Your task to perform on an android device: Empty the shopping cart on target. Search for "alienware area 51" on target, select the first entry, and add it to the cart. Image 0: 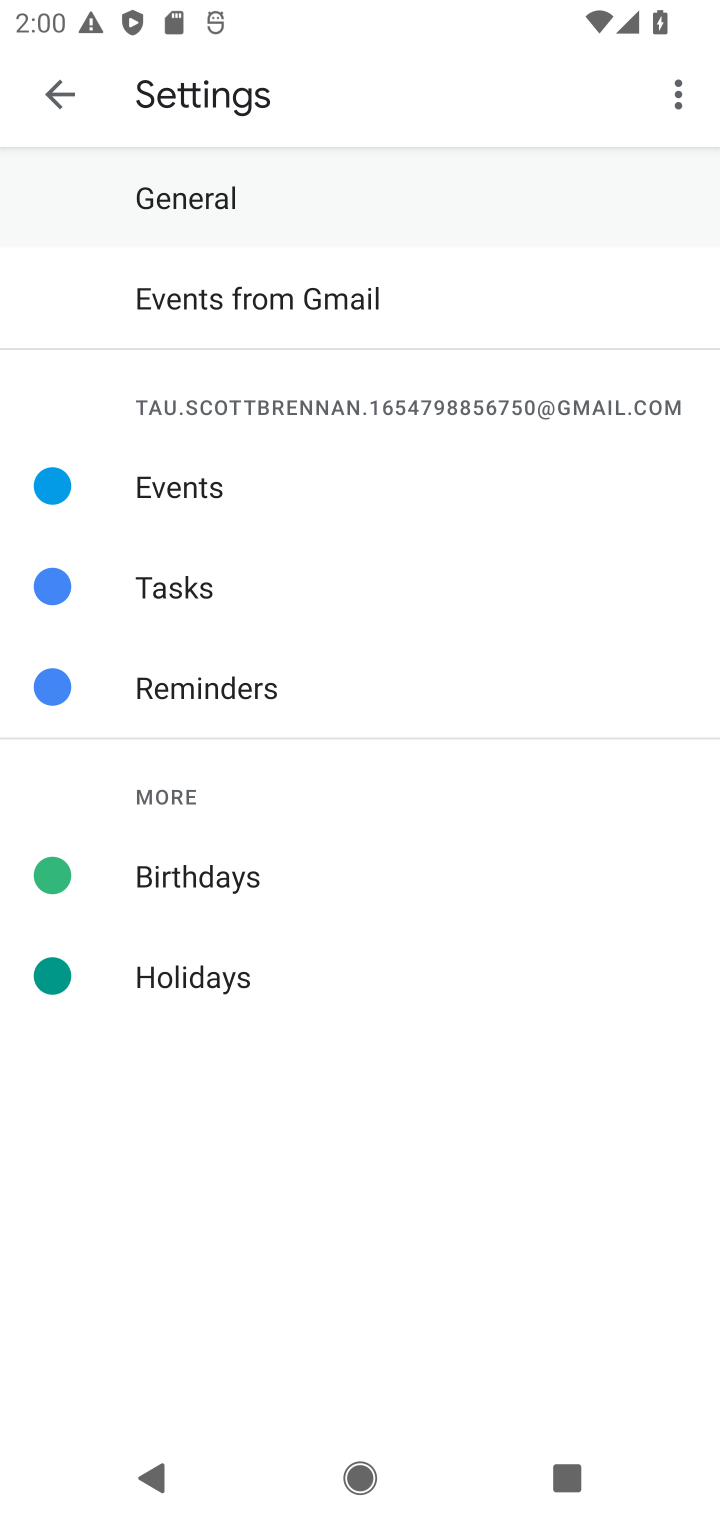
Step 0: task complete